Your task to perform on an android device: turn pop-ups off in chrome Image 0: 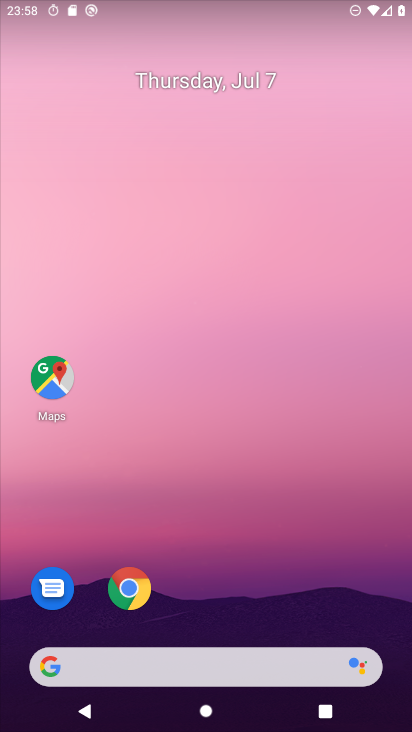
Step 0: drag from (269, 573) to (284, 90)
Your task to perform on an android device: turn pop-ups off in chrome Image 1: 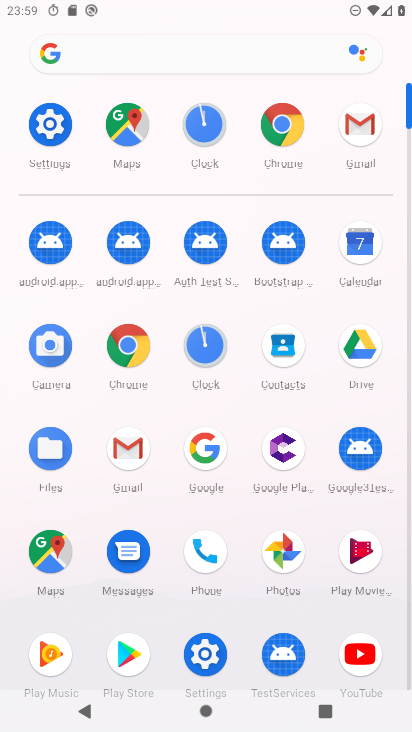
Step 1: click (284, 124)
Your task to perform on an android device: turn pop-ups off in chrome Image 2: 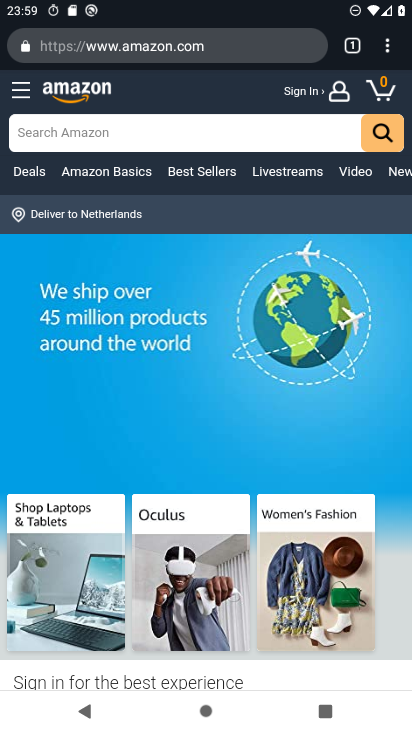
Step 2: drag from (387, 47) to (234, 551)
Your task to perform on an android device: turn pop-ups off in chrome Image 3: 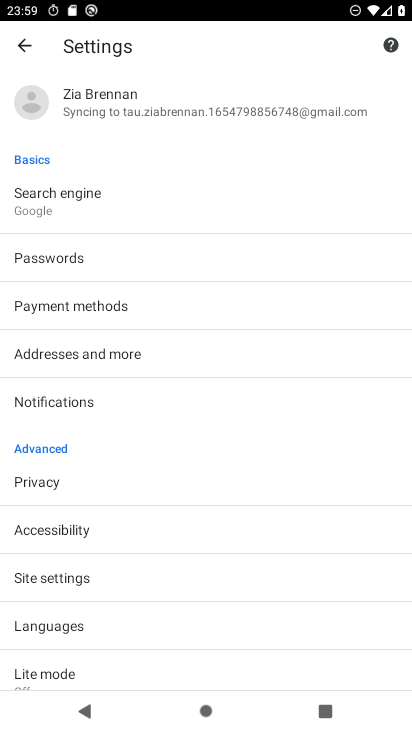
Step 3: click (83, 577)
Your task to perform on an android device: turn pop-ups off in chrome Image 4: 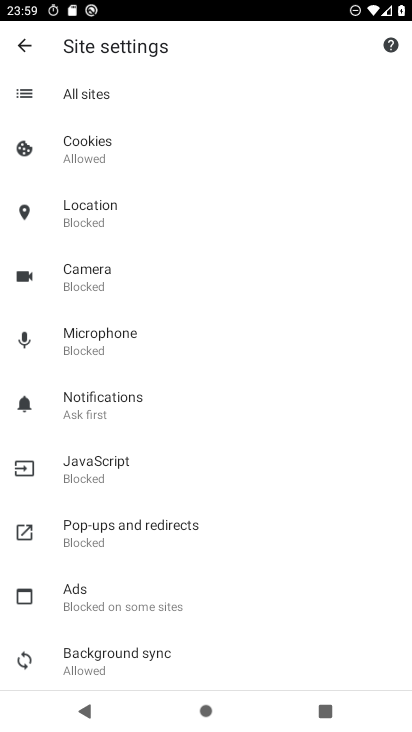
Step 4: click (135, 525)
Your task to perform on an android device: turn pop-ups off in chrome Image 5: 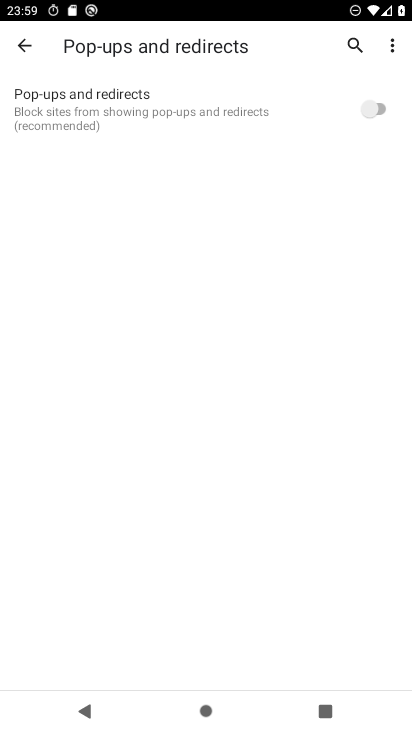
Step 5: task complete